Your task to perform on an android device: toggle show notifications on the lock screen Image 0: 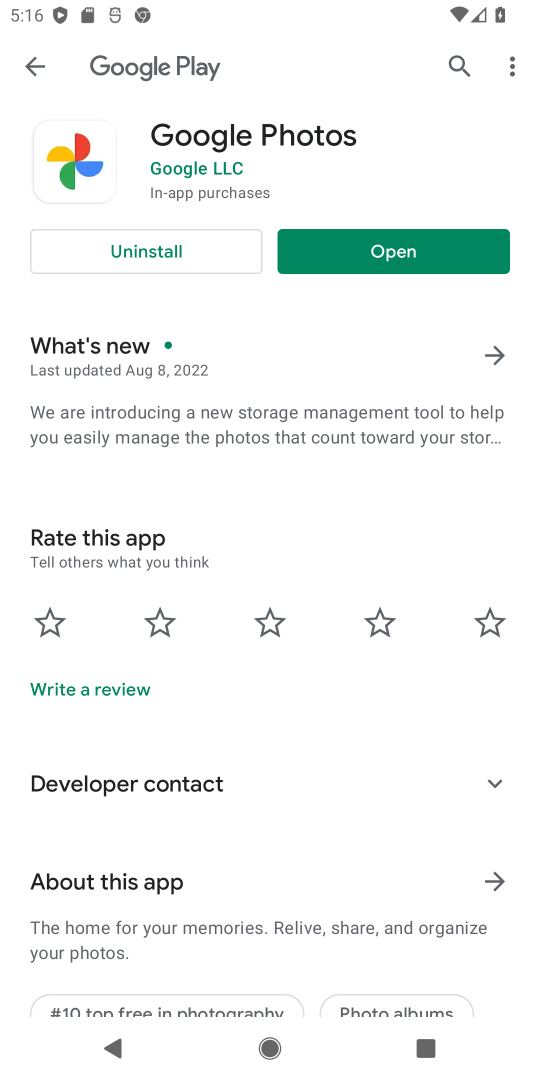
Step 0: press home button
Your task to perform on an android device: toggle show notifications on the lock screen Image 1: 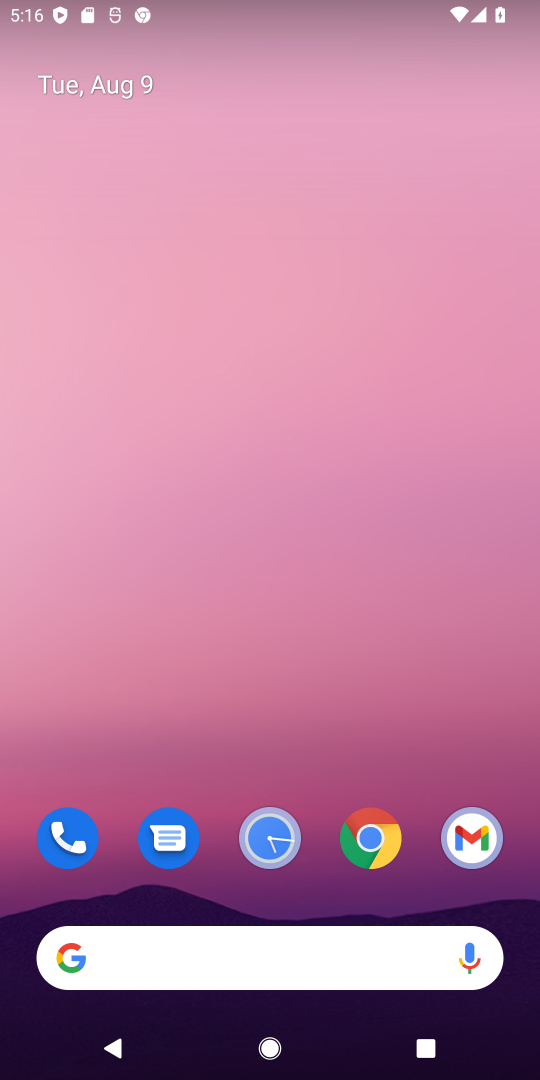
Step 1: drag from (323, 762) to (331, 0)
Your task to perform on an android device: toggle show notifications on the lock screen Image 2: 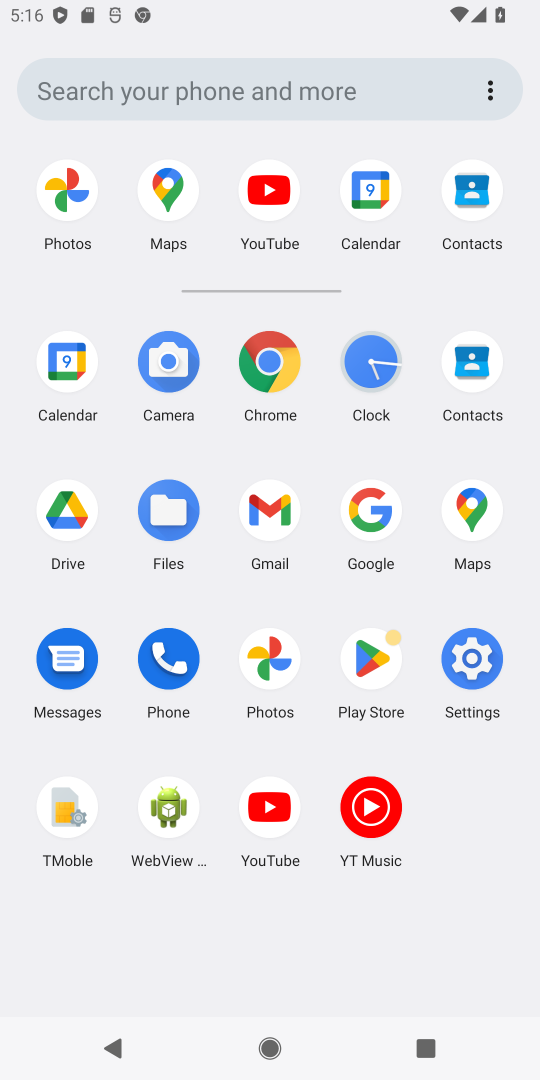
Step 2: click (474, 673)
Your task to perform on an android device: toggle show notifications on the lock screen Image 3: 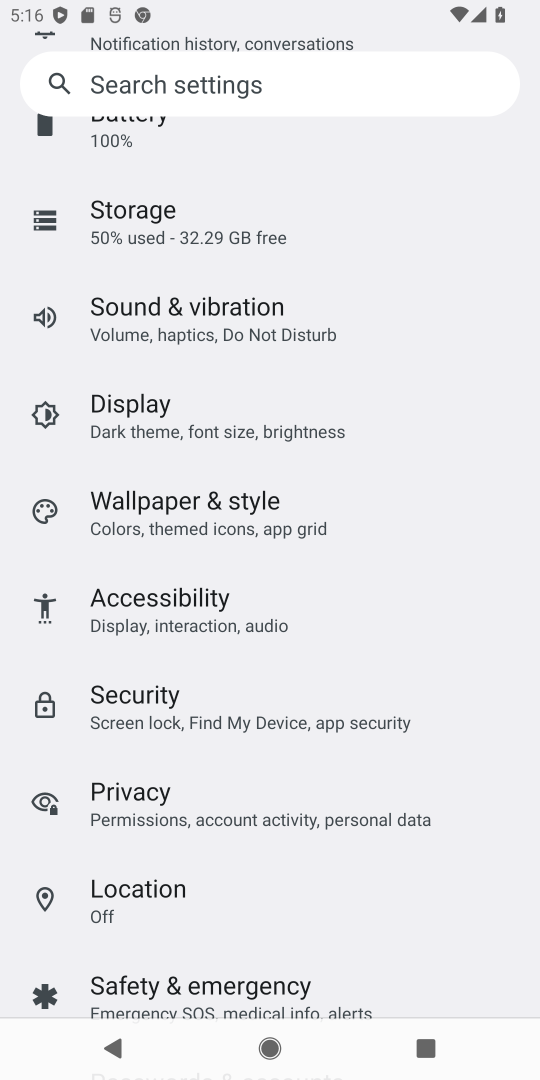
Step 3: drag from (238, 241) to (291, 884)
Your task to perform on an android device: toggle show notifications on the lock screen Image 4: 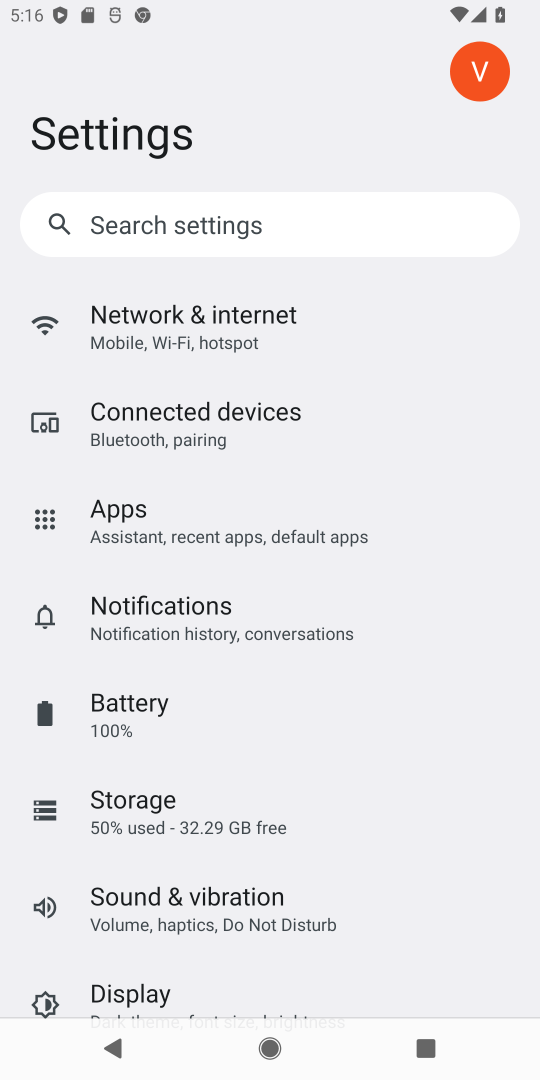
Step 4: click (223, 597)
Your task to perform on an android device: toggle show notifications on the lock screen Image 5: 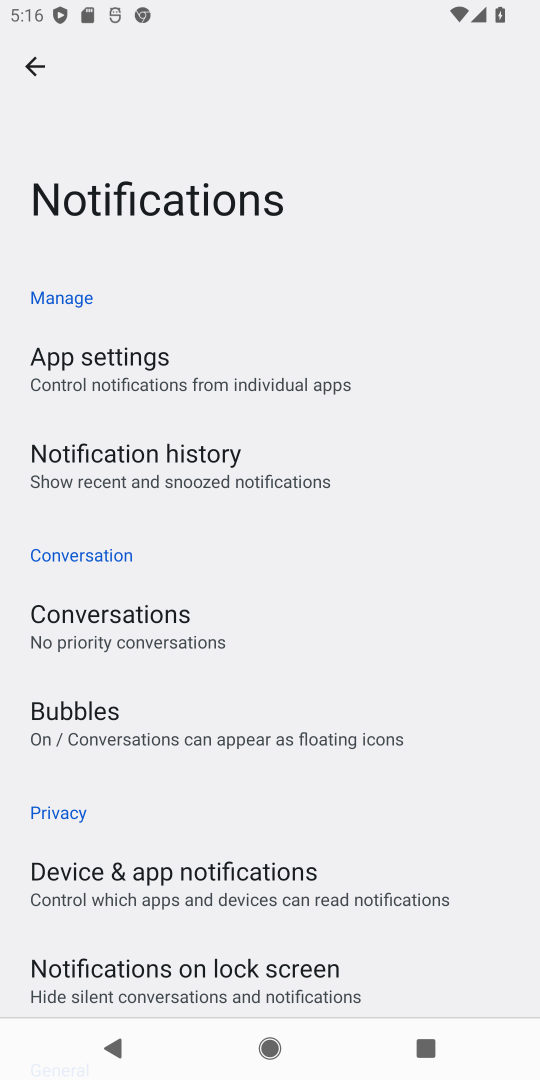
Step 5: drag from (338, 879) to (324, 357)
Your task to perform on an android device: toggle show notifications on the lock screen Image 6: 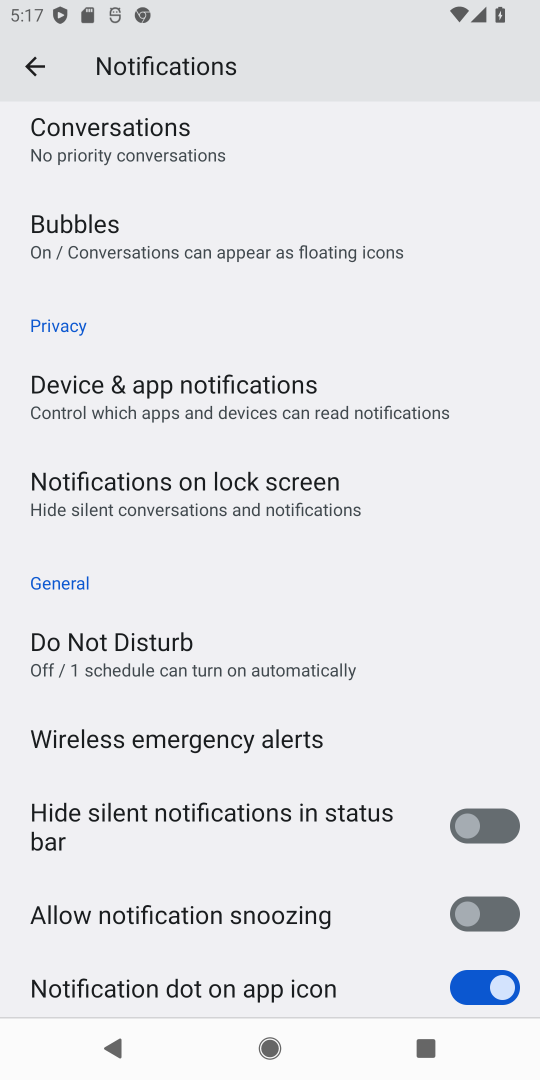
Step 6: click (346, 507)
Your task to perform on an android device: toggle show notifications on the lock screen Image 7: 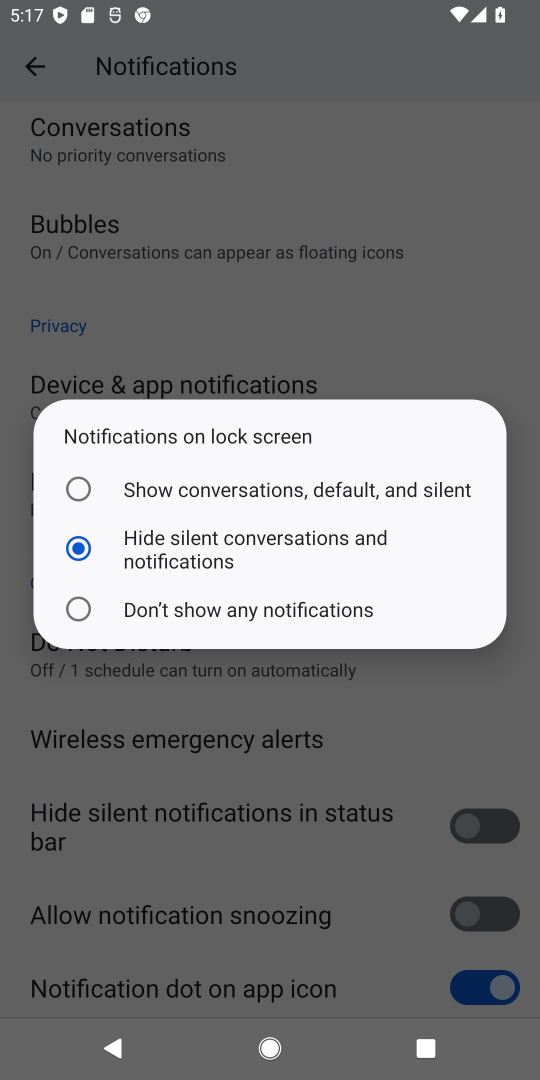
Step 7: click (295, 494)
Your task to perform on an android device: toggle show notifications on the lock screen Image 8: 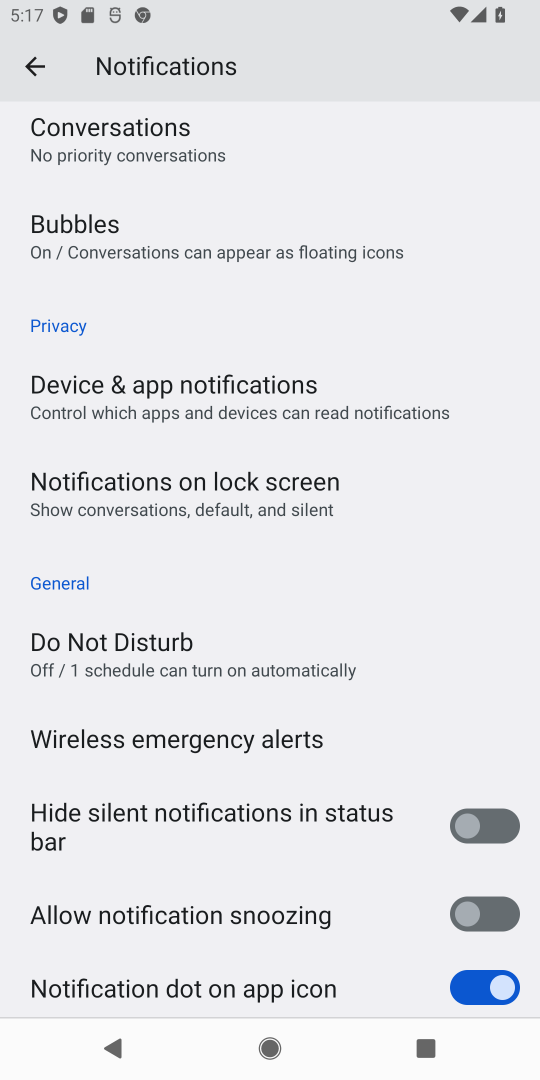
Step 8: task complete